Your task to perform on an android device: change the clock display to show seconds Image 0: 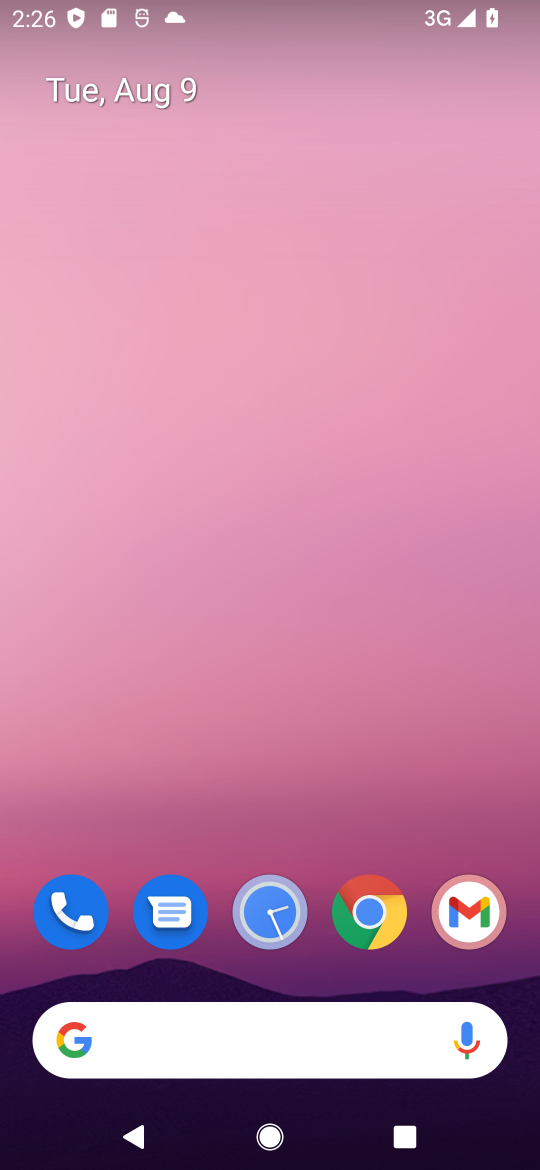
Step 0: click (267, 915)
Your task to perform on an android device: change the clock display to show seconds Image 1: 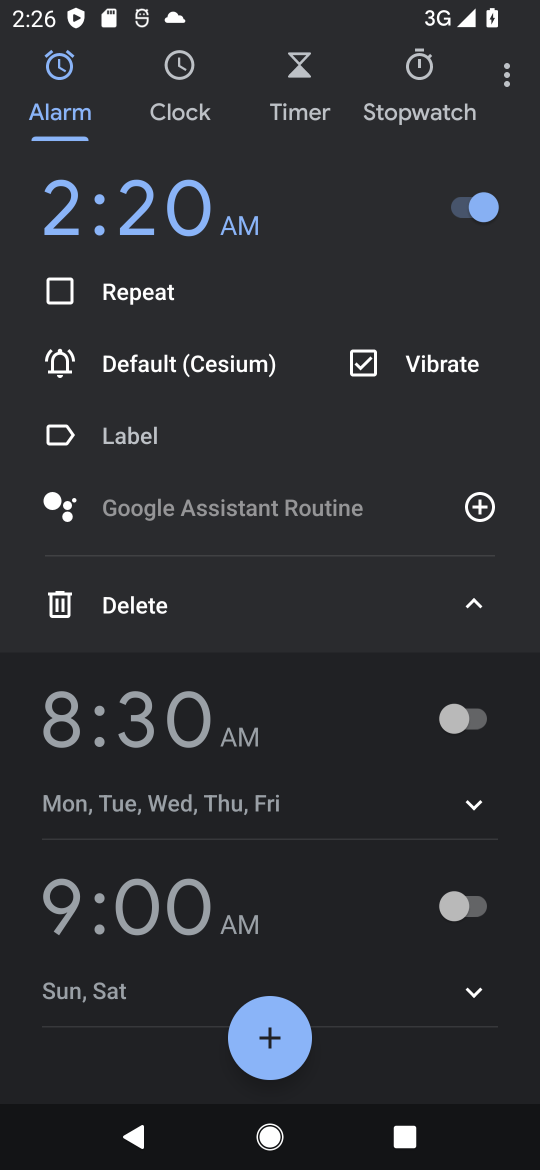
Step 1: click (507, 84)
Your task to perform on an android device: change the clock display to show seconds Image 2: 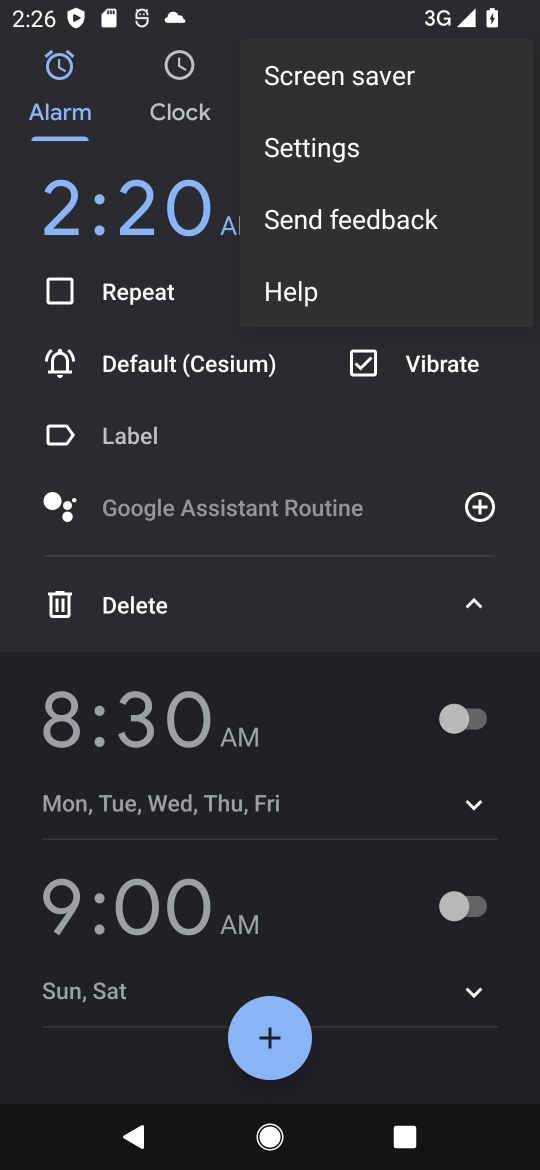
Step 2: click (337, 151)
Your task to perform on an android device: change the clock display to show seconds Image 3: 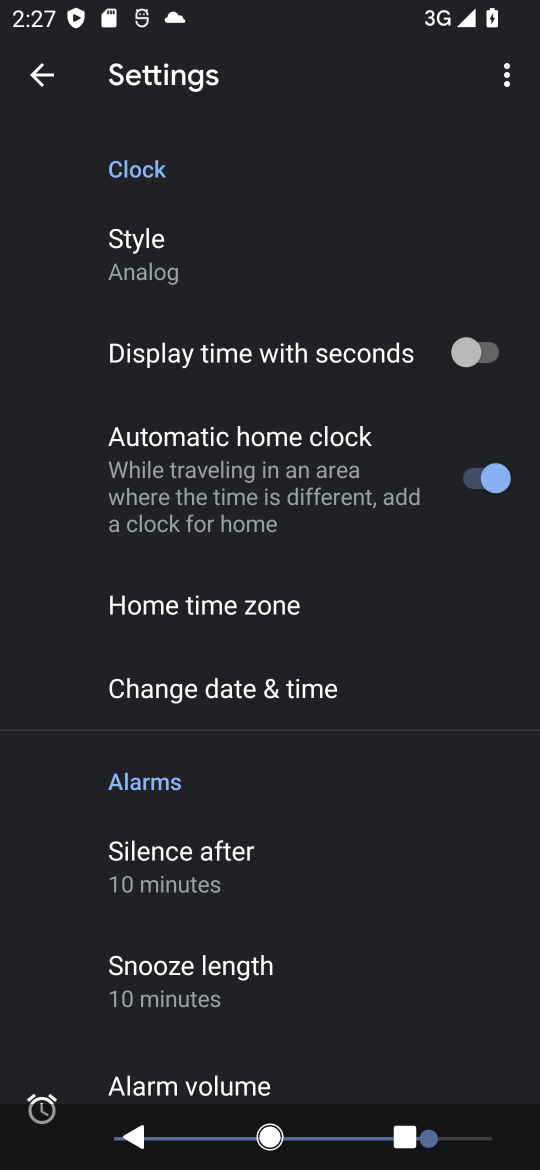
Step 3: click (478, 351)
Your task to perform on an android device: change the clock display to show seconds Image 4: 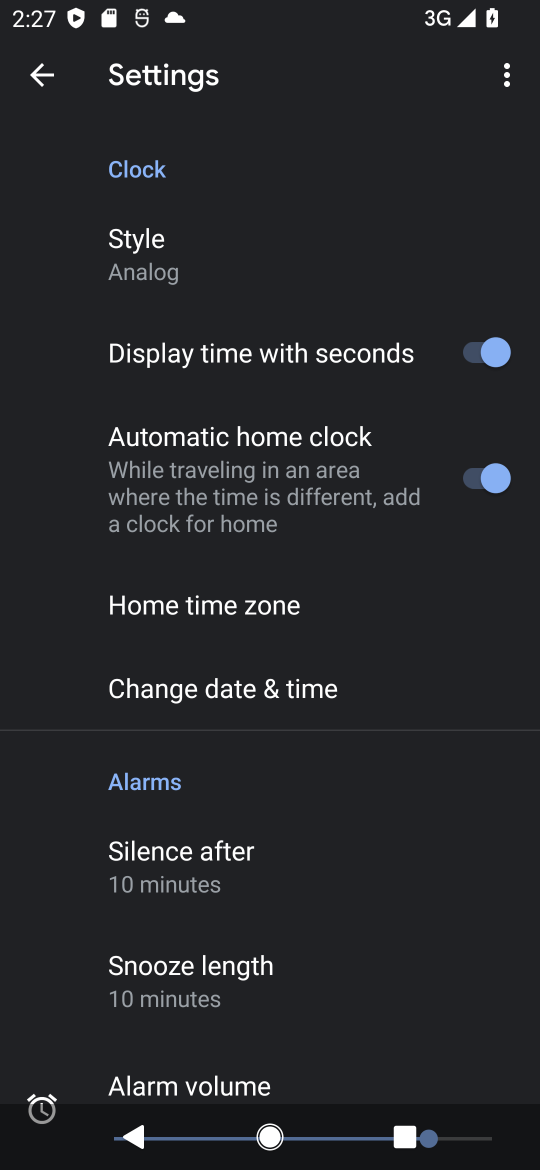
Step 4: task complete